Your task to perform on an android device: Go to Maps Image 0: 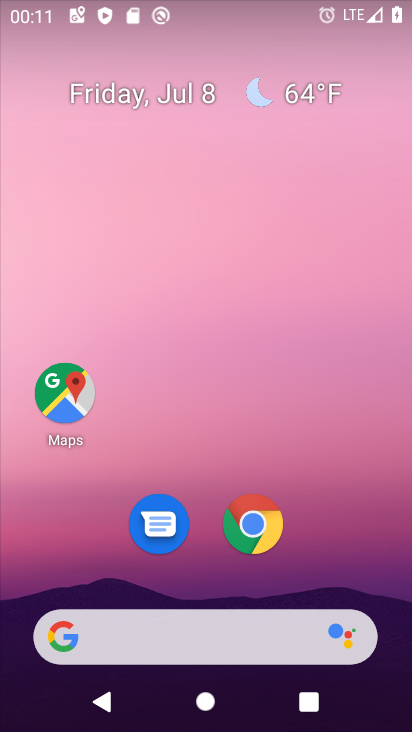
Step 0: click (70, 396)
Your task to perform on an android device: Go to Maps Image 1: 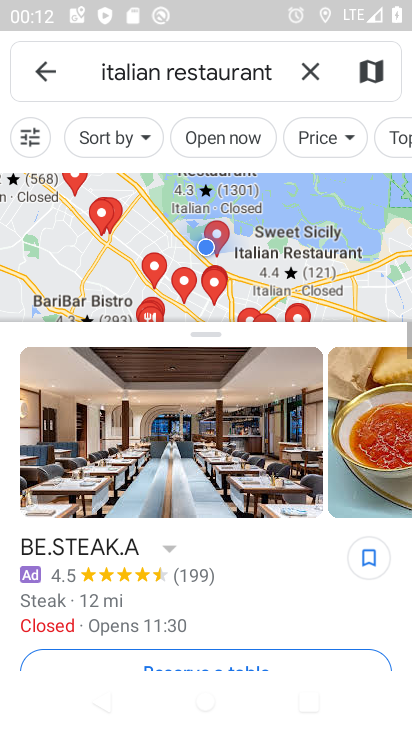
Step 1: click (312, 68)
Your task to perform on an android device: Go to Maps Image 2: 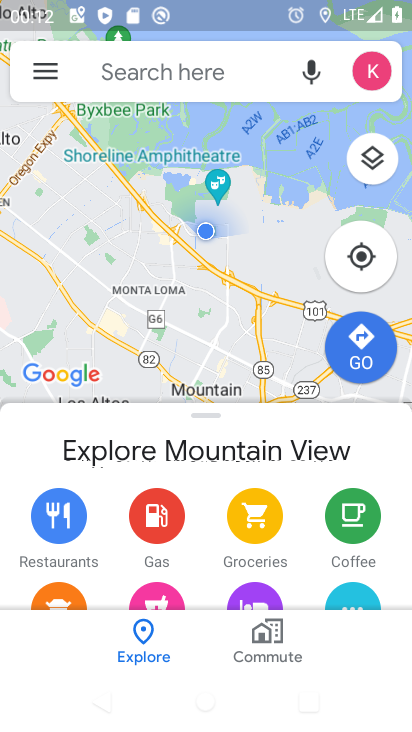
Step 2: task complete